Your task to perform on an android device: What's on my calendar today? Image 0: 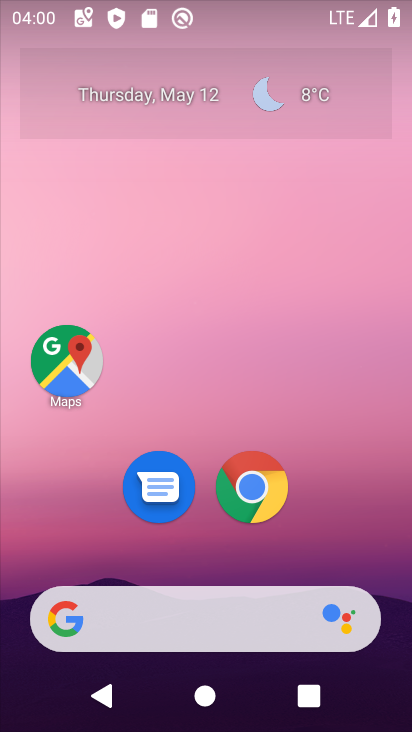
Step 0: drag from (328, 461) to (220, 37)
Your task to perform on an android device: What's on my calendar today? Image 1: 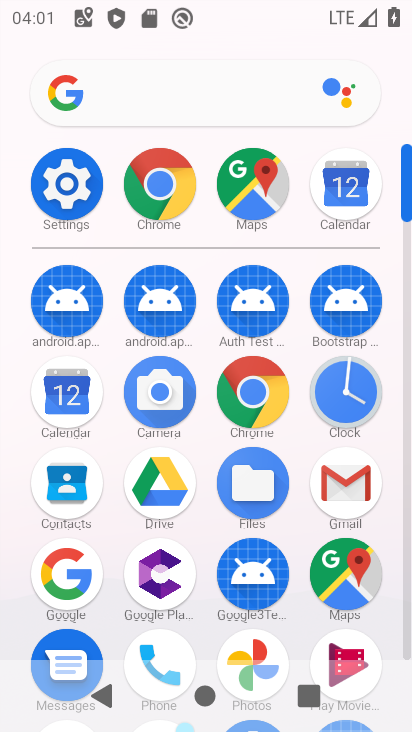
Step 1: click (58, 383)
Your task to perform on an android device: What's on my calendar today? Image 2: 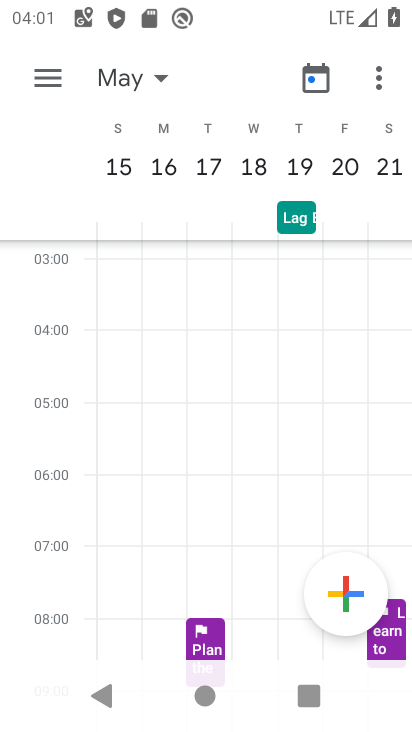
Step 2: click (55, 81)
Your task to perform on an android device: What's on my calendar today? Image 3: 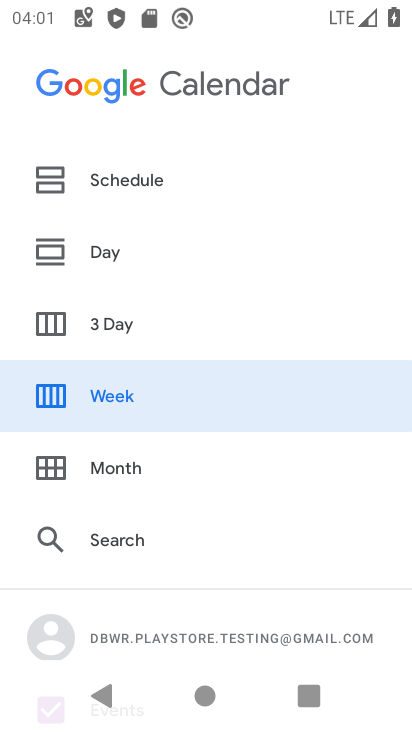
Step 3: click (81, 243)
Your task to perform on an android device: What's on my calendar today? Image 4: 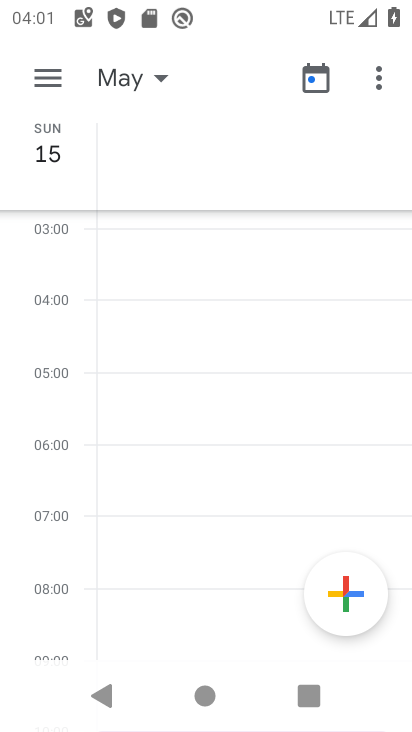
Step 4: click (140, 76)
Your task to perform on an android device: What's on my calendar today? Image 5: 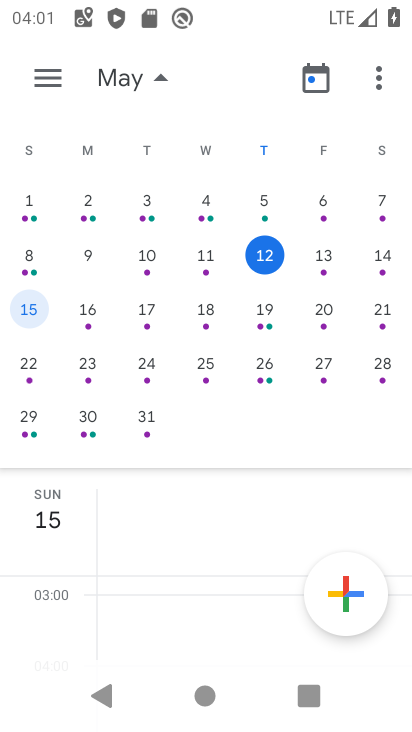
Step 5: click (215, 256)
Your task to perform on an android device: What's on my calendar today? Image 6: 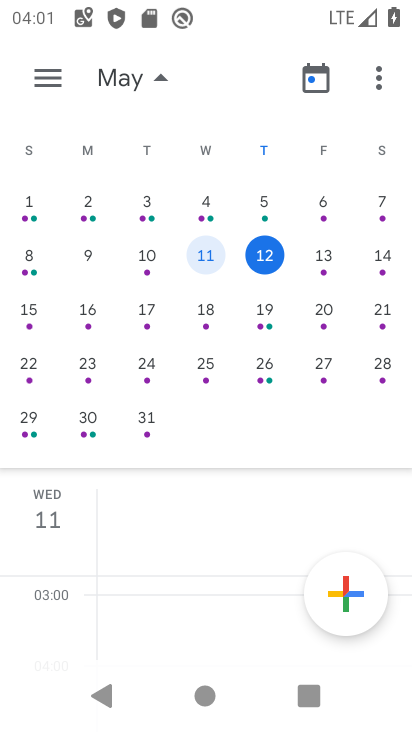
Step 6: drag from (184, 584) to (242, 17)
Your task to perform on an android device: What's on my calendar today? Image 7: 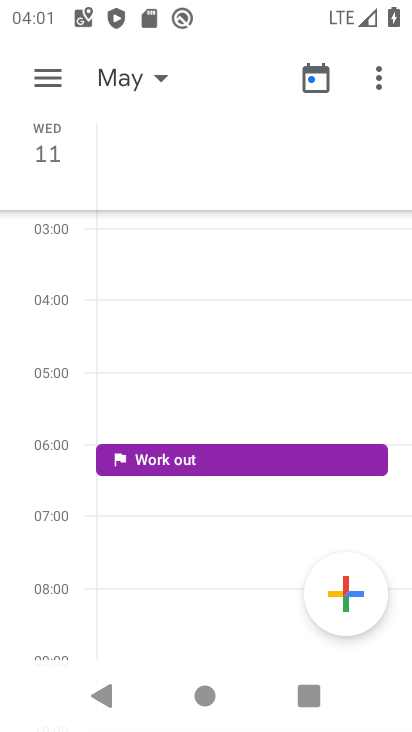
Step 7: click (152, 84)
Your task to perform on an android device: What's on my calendar today? Image 8: 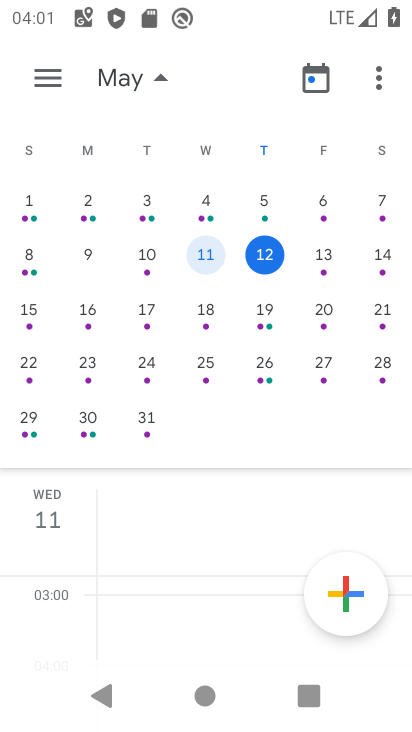
Step 8: click (268, 245)
Your task to perform on an android device: What's on my calendar today? Image 9: 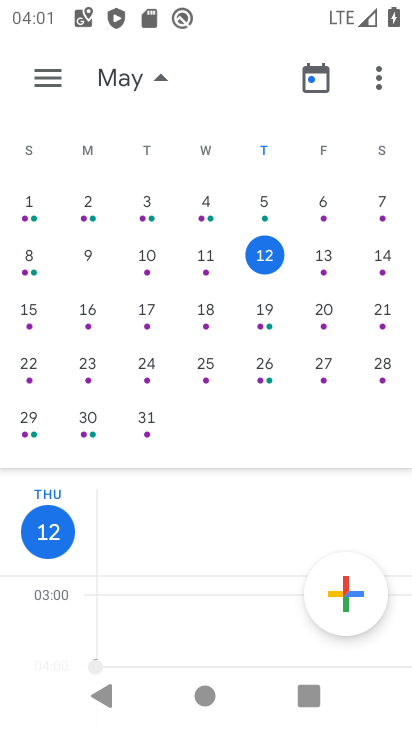
Step 9: task complete